Your task to perform on an android device: Open Android settings Image 0: 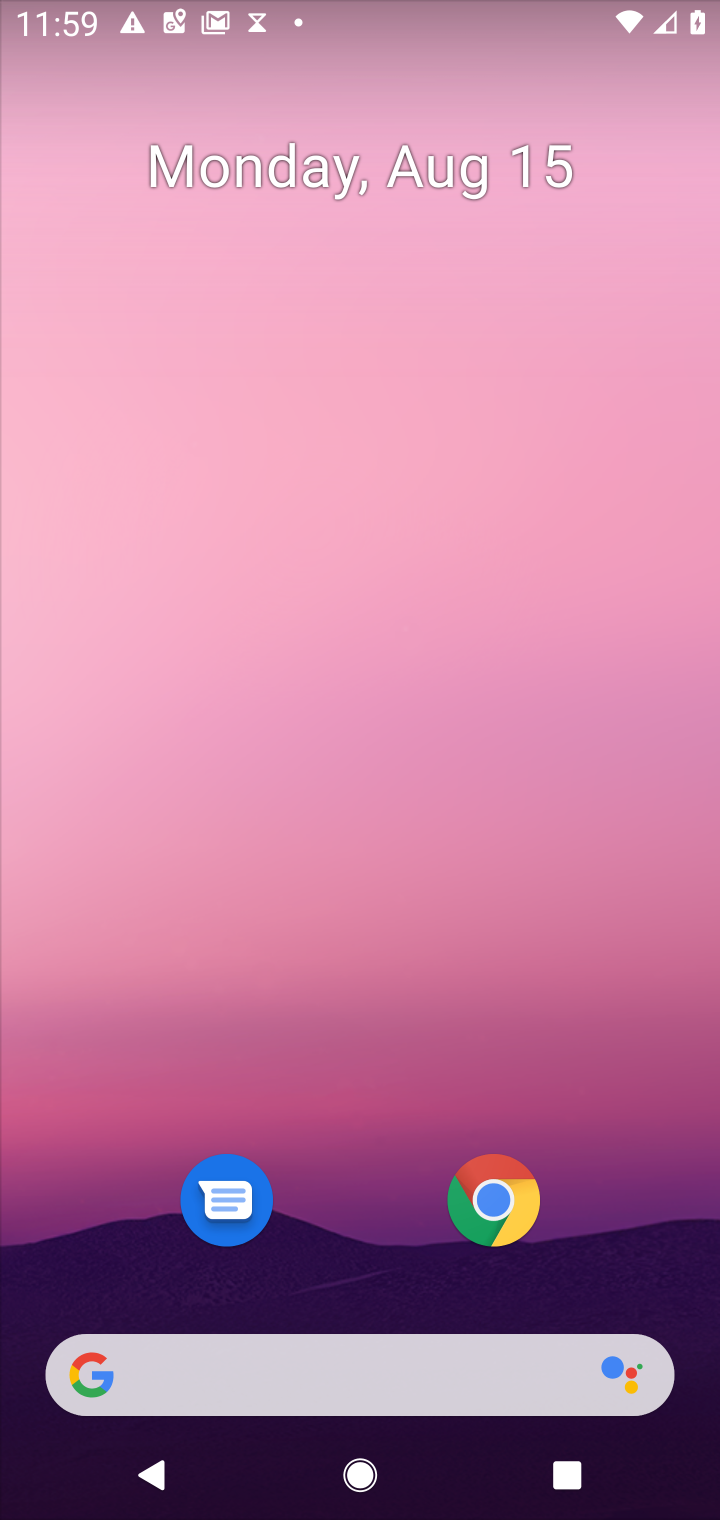
Step 0: drag from (351, 1146) to (348, 250)
Your task to perform on an android device: Open Android settings Image 1: 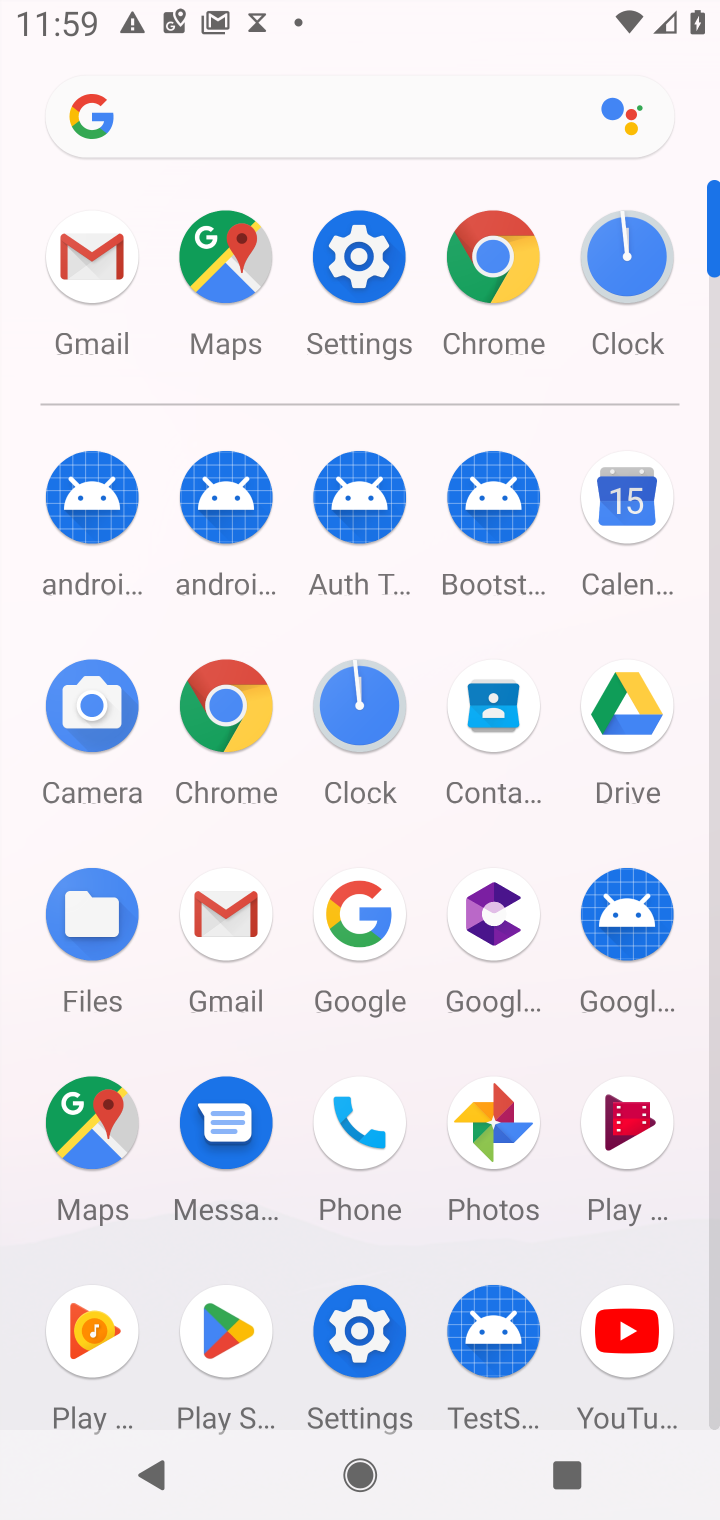
Step 1: click (361, 300)
Your task to perform on an android device: Open Android settings Image 2: 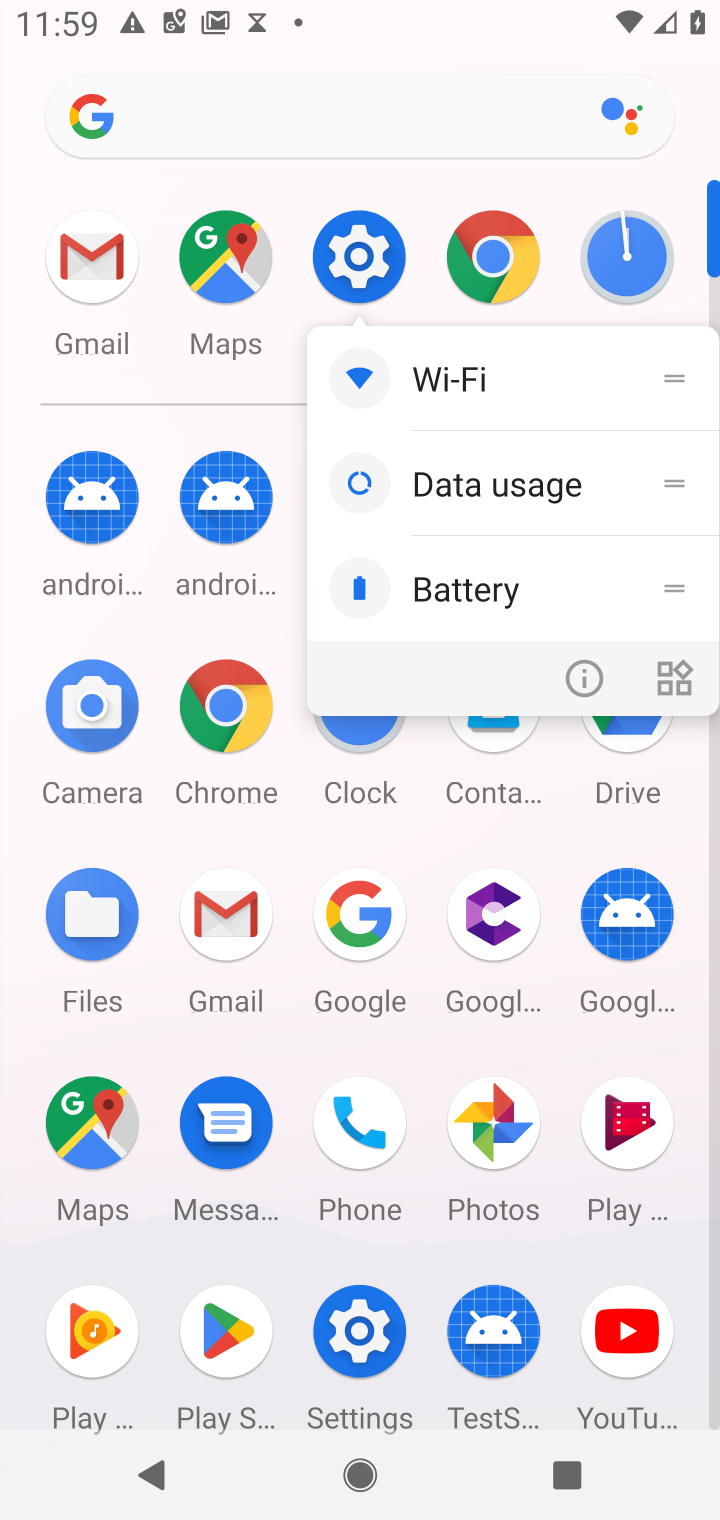
Step 2: click (380, 259)
Your task to perform on an android device: Open Android settings Image 3: 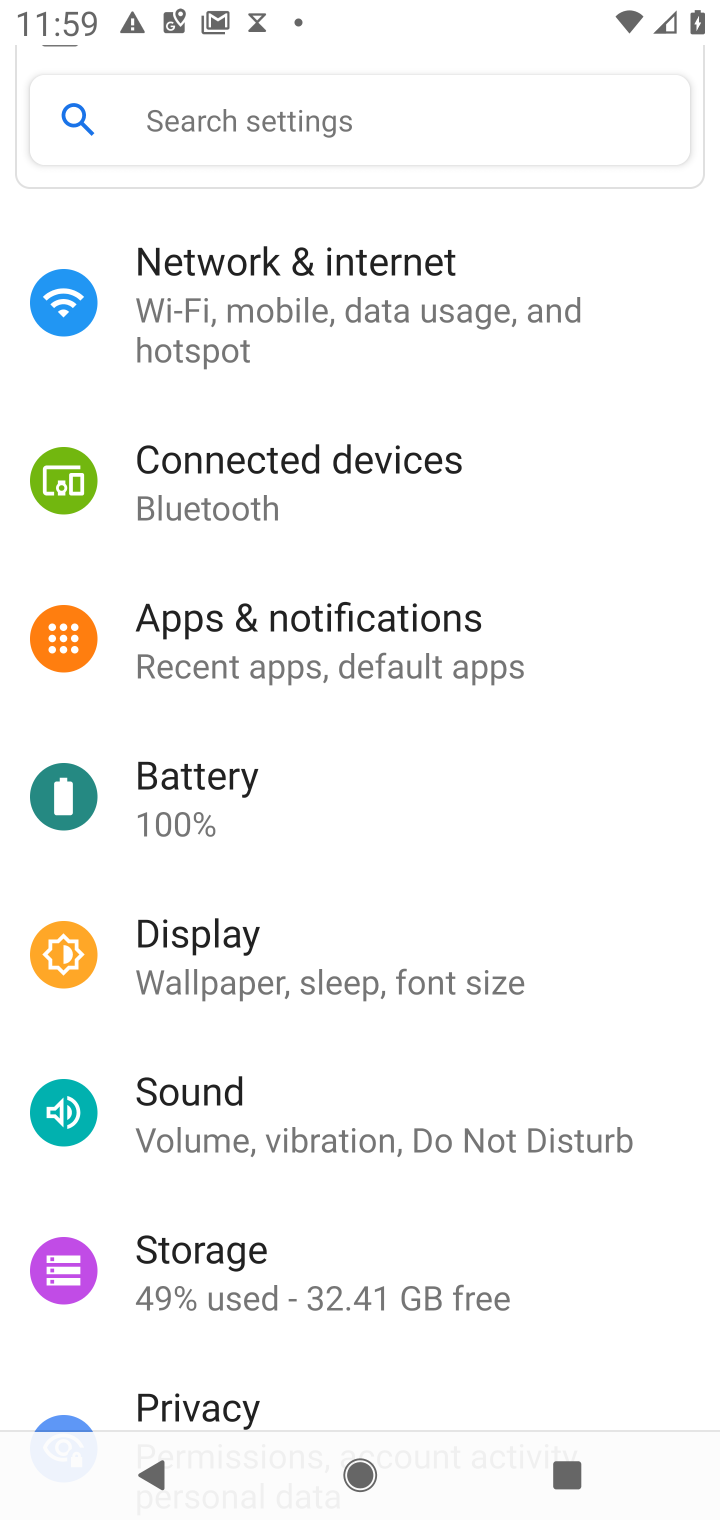
Step 3: task complete